Your task to perform on an android device: turn off smart reply in the gmail app Image 0: 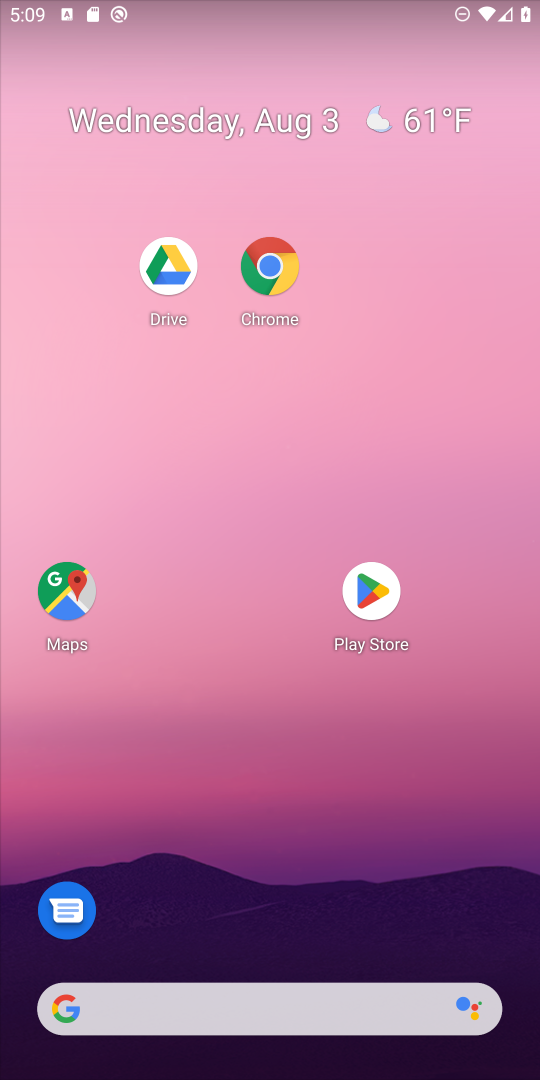
Step 0: drag from (359, 591) to (522, 650)
Your task to perform on an android device: turn off smart reply in the gmail app Image 1: 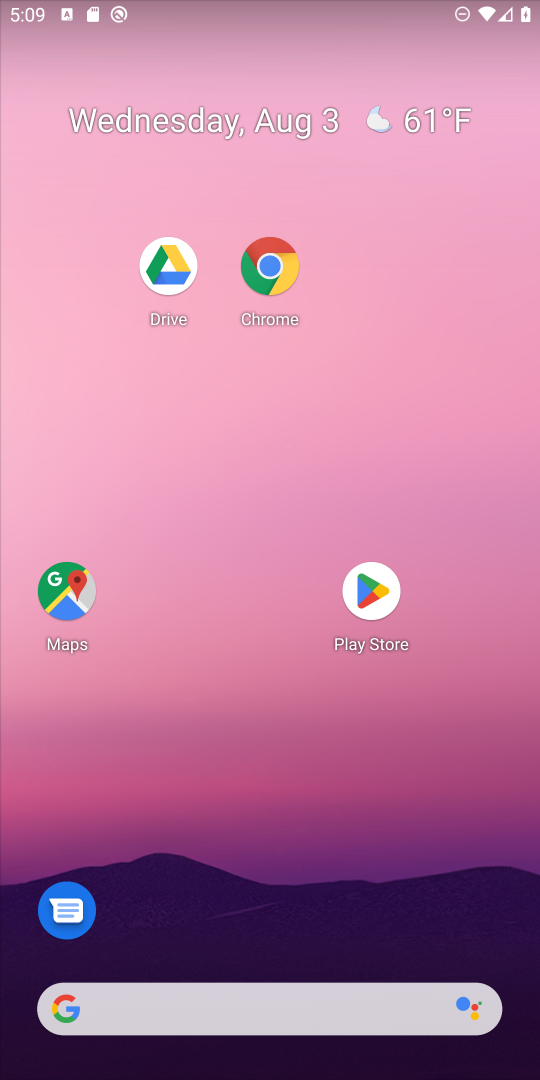
Step 1: drag from (328, 987) to (497, 1042)
Your task to perform on an android device: turn off smart reply in the gmail app Image 2: 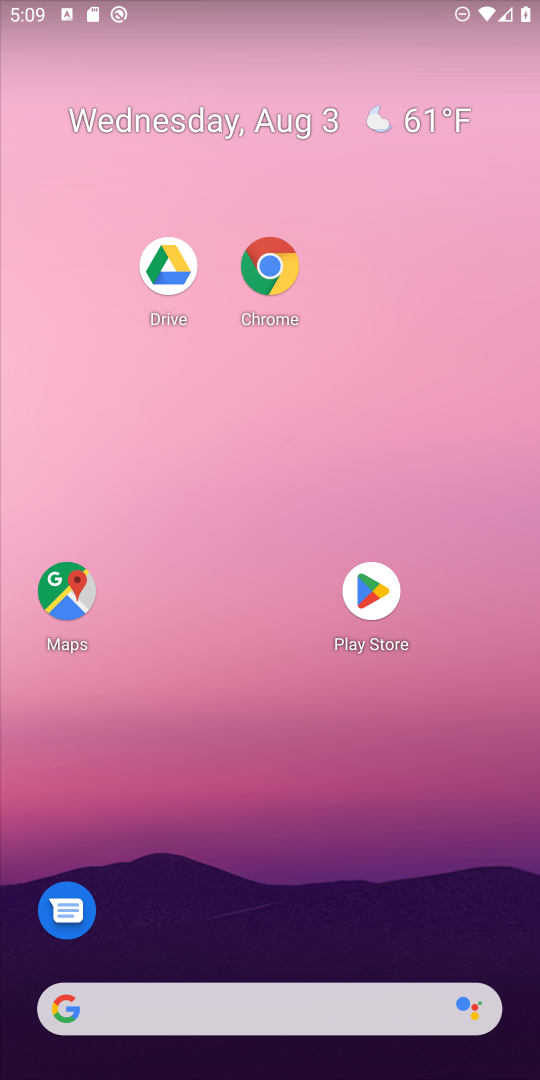
Step 2: drag from (296, 998) to (523, 26)
Your task to perform on an android device: turn off smart reply in the gmail app Image 3: 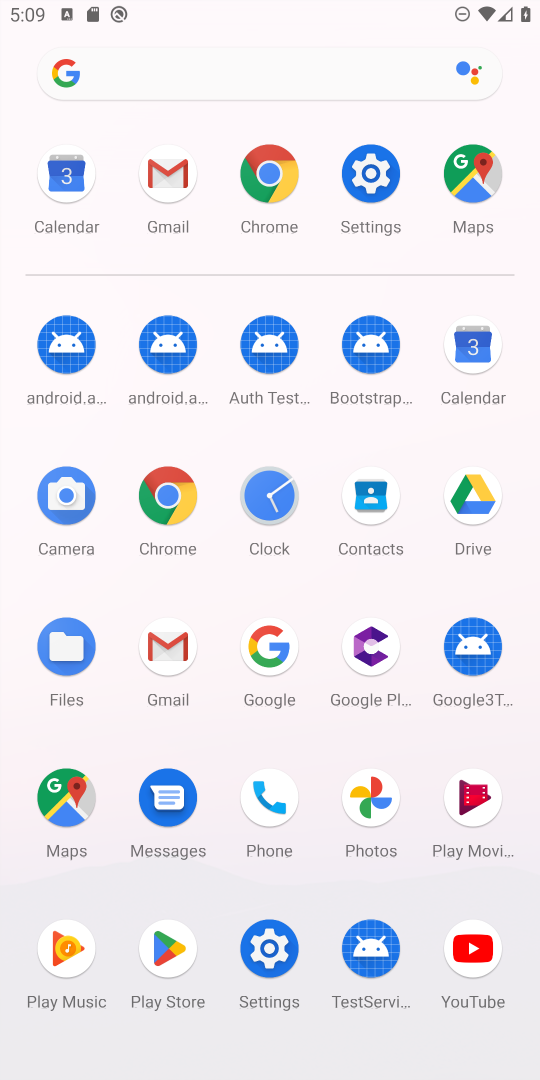
Step 3: click (181, 640)
Your task to perform on an android device: turn off smart reply in the gmail app Image 4: 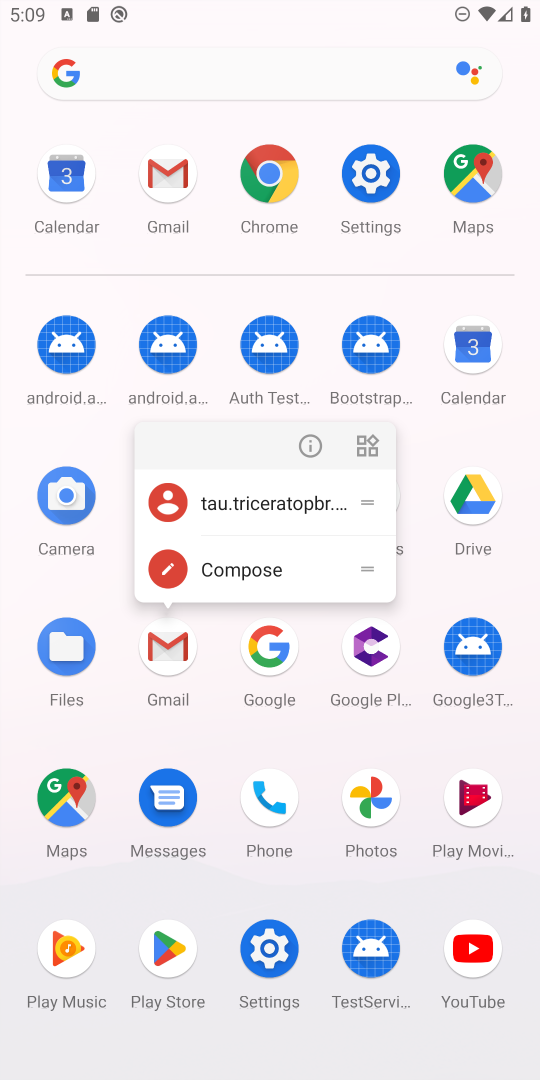
Step 4: click (176, 641)
Your task to perform on an android device: turn off smart reply in the gmail app Image 5: 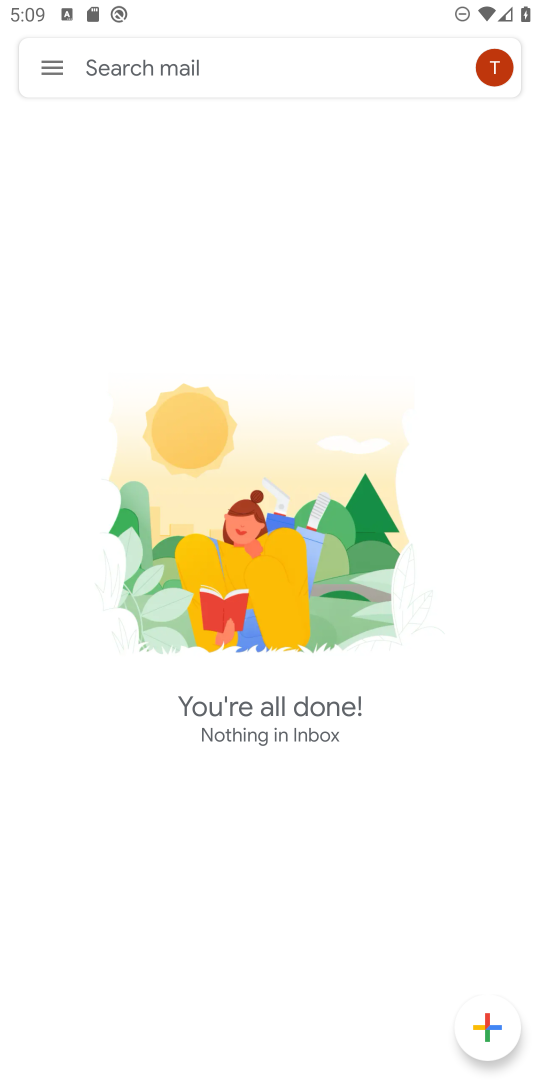
Step 5: click (62, 68)
Your task to perform on an android device: turn off smart reply in the gmail app Image 6: 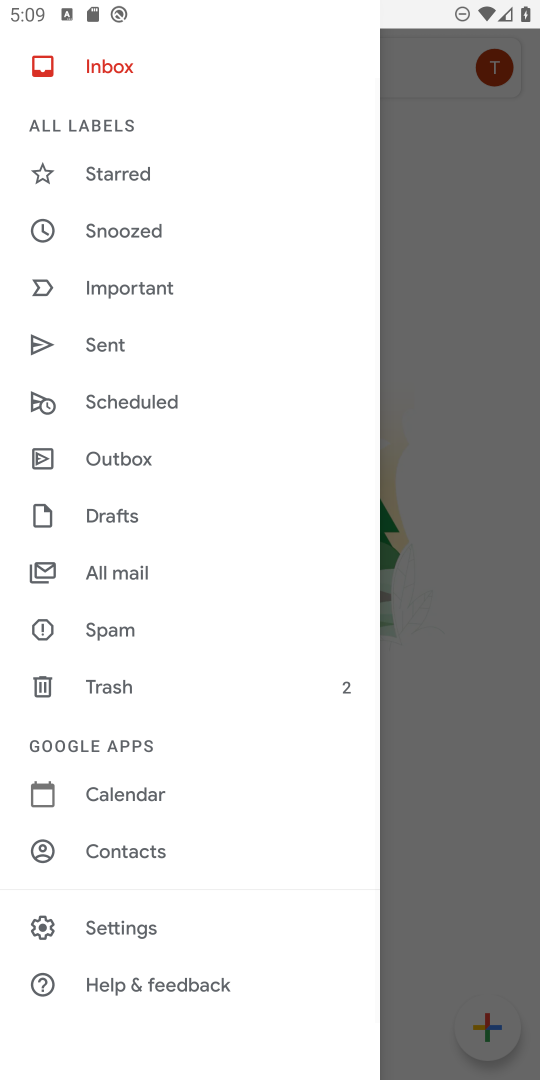
Step 6: click (136, 930)
Your task to perform on an android device: turn off smart reply in the gmail app Image 7: 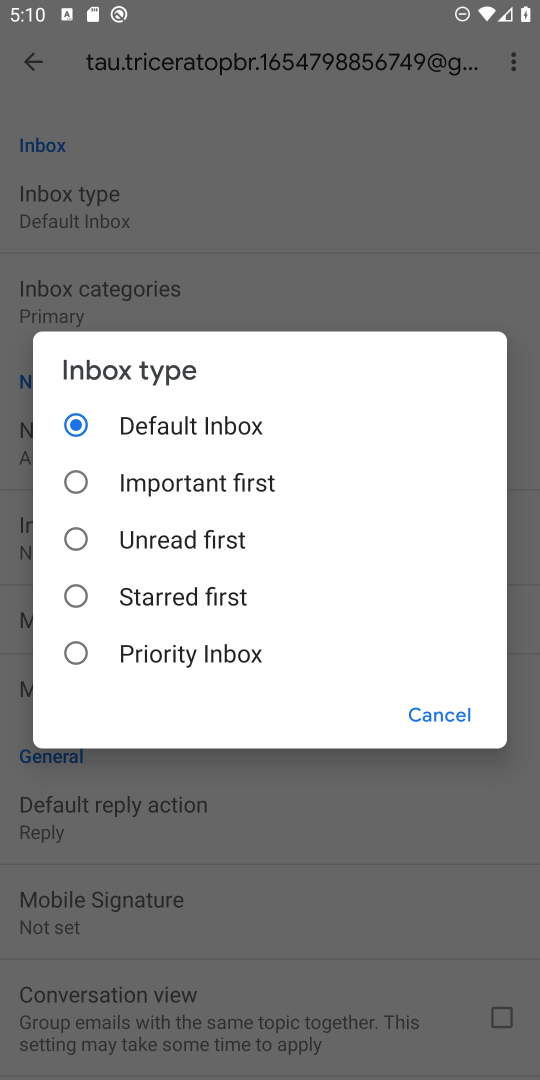
Step 7: click (436, 713)
Your task to perform on an android device: turn off smart reply in the gmail app Image 8: 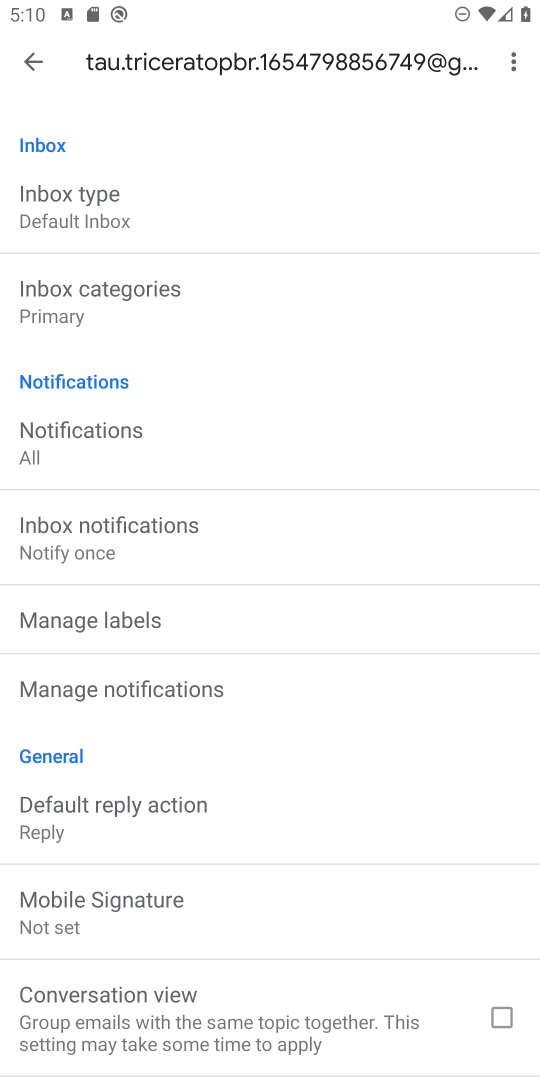
Step 8: drag from (162, 904) to (158, 92)
Your task to perform on an android device: turn off smart reply in the gmail app Image 9: 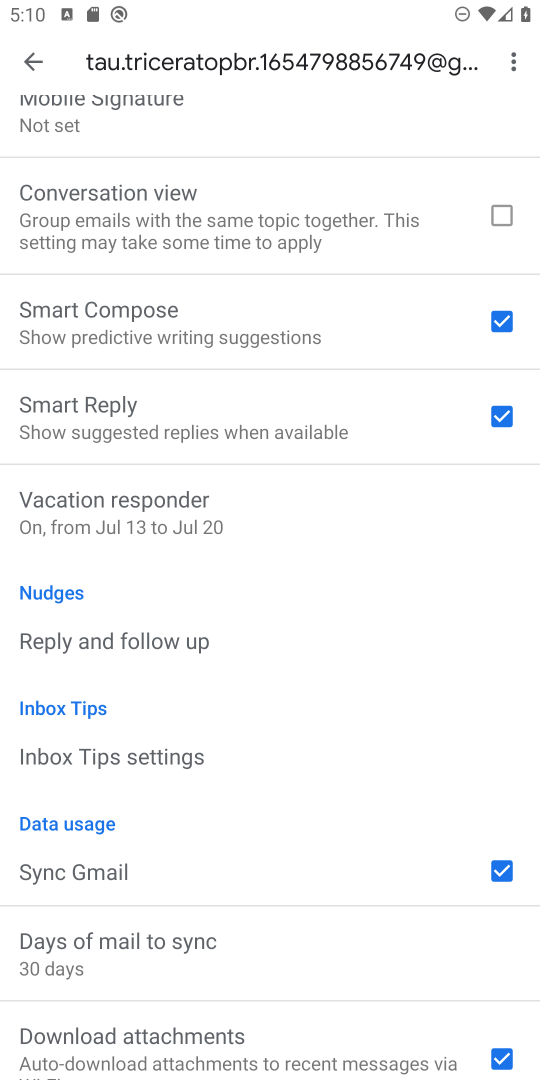
Step 9: click (506, 409)
Your task to perform on an android device: turn off smart reply in the gmail app Image 10: 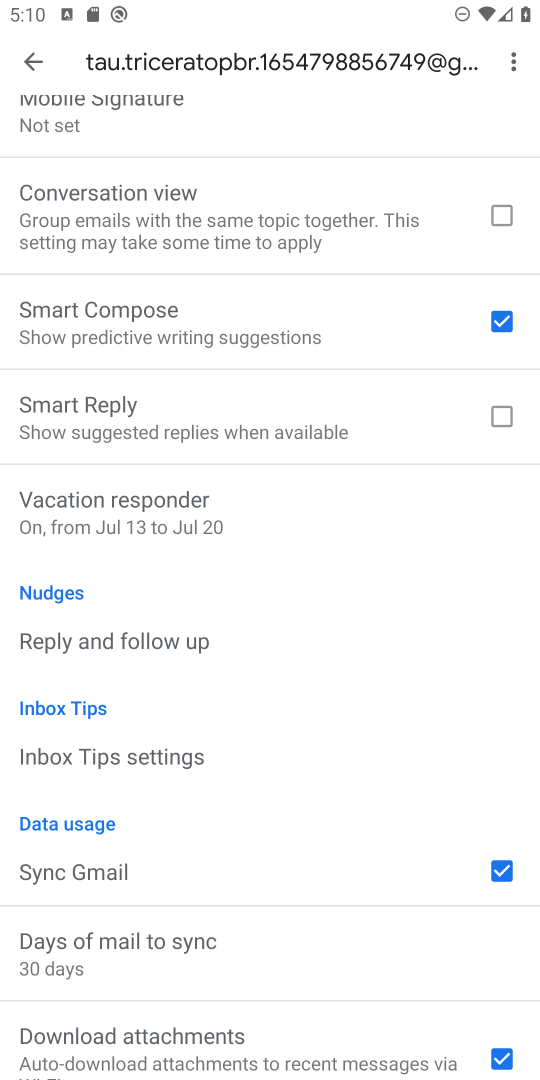
Step 10: task complete